Your task to perform on an android device: turn off translation in the chrome app Image 0: 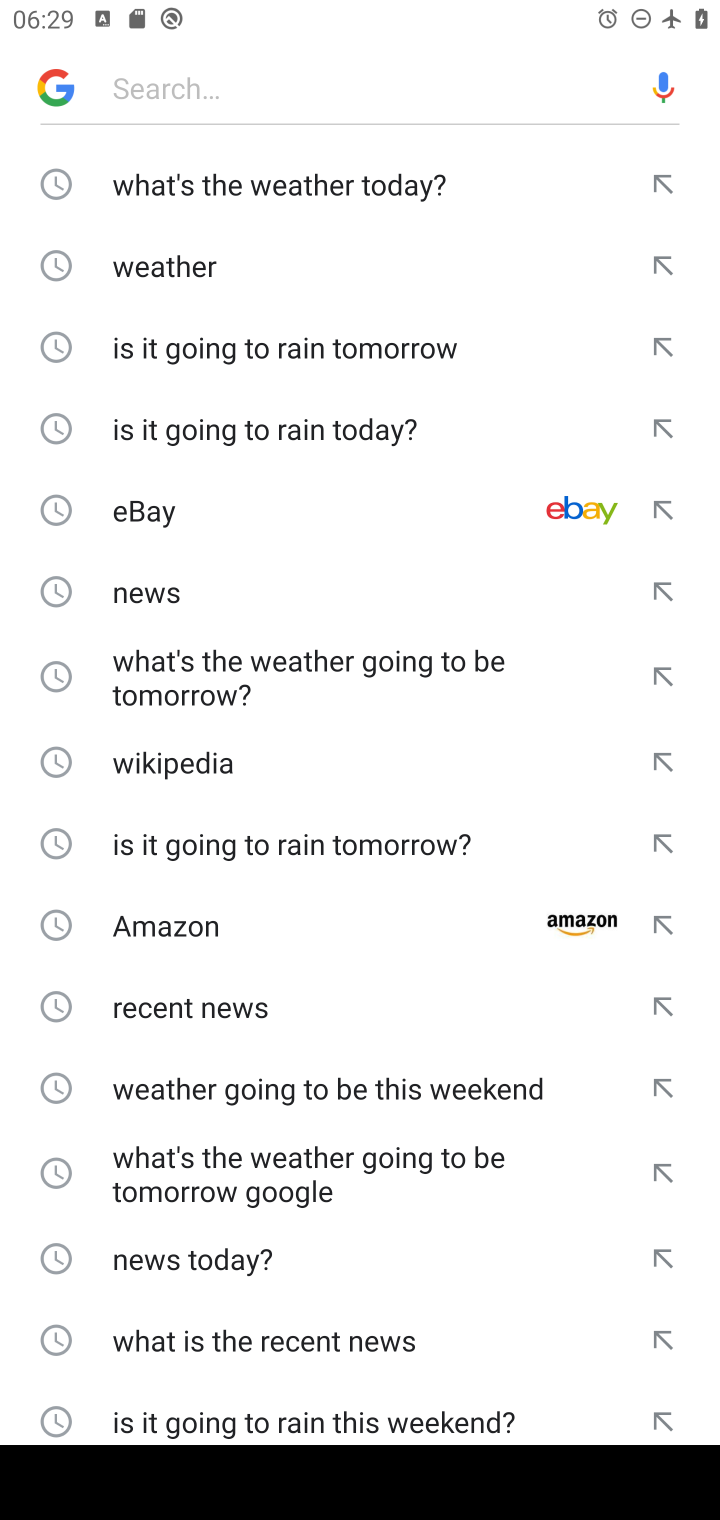
Step 0: press home button
Your task to perform on an android device: turn off translation in the chrome app Image 1: 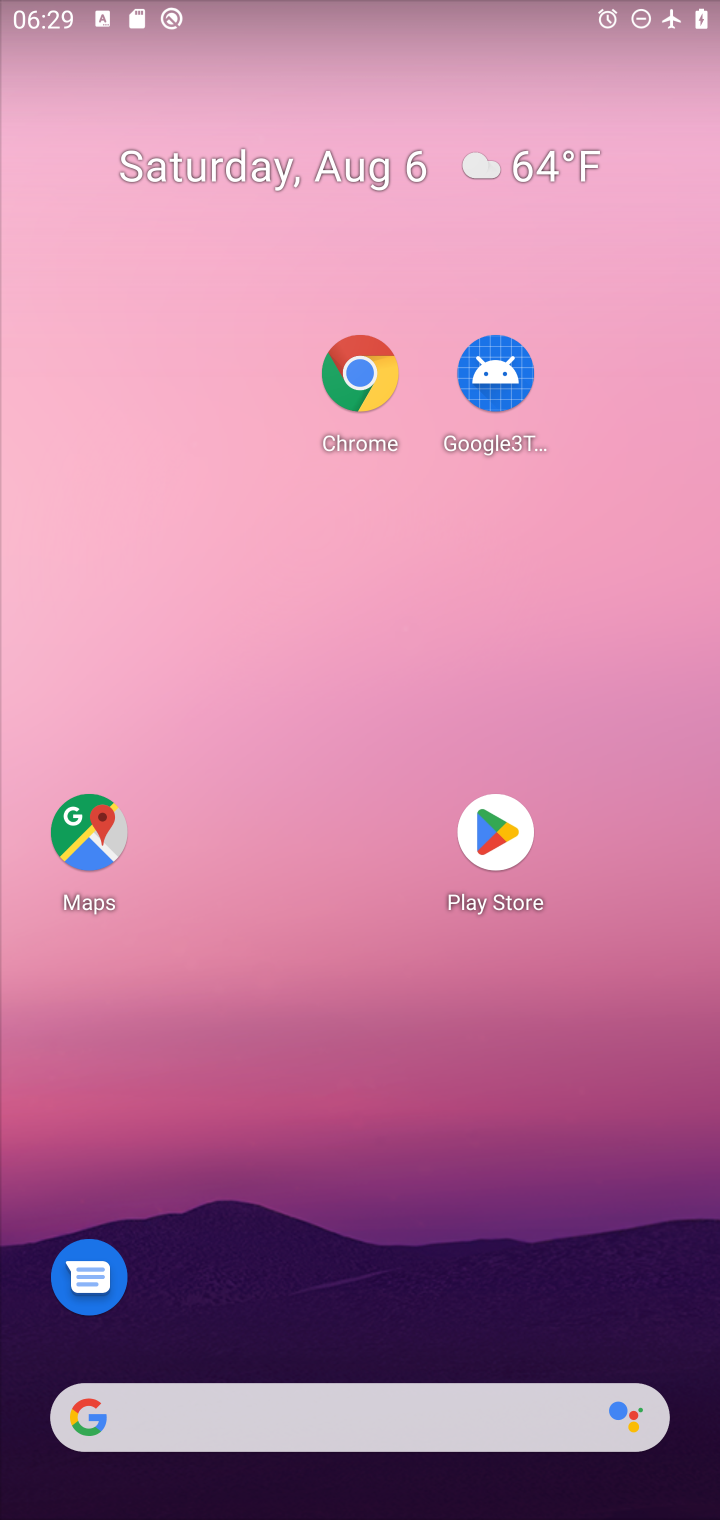
Step 1: drag from (405, 1423) to (260, 49)
Your task to perform on an android device: turn off translation in the chrome app Image 2: 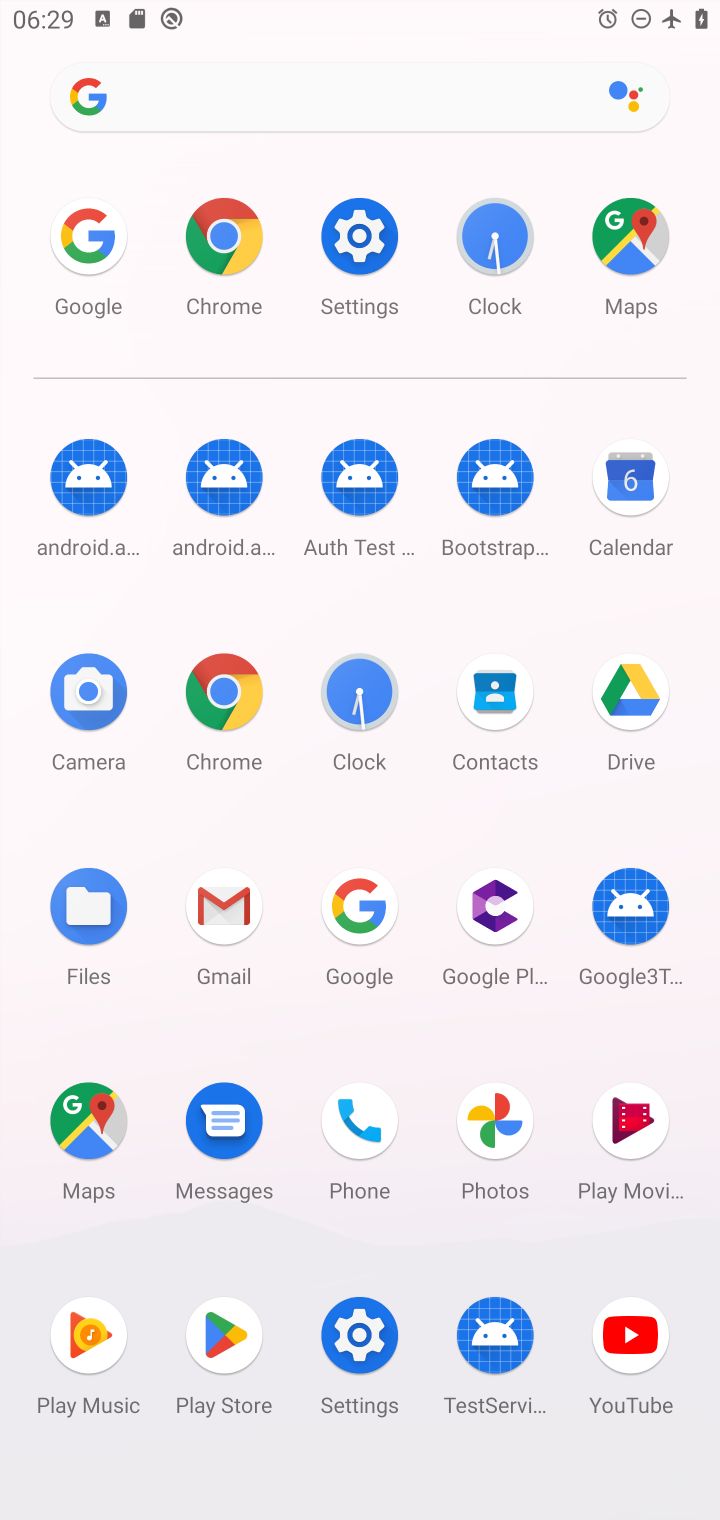
Step 2: click (232, 690)
Your task to perform on an android device: turn off translation in the chrome app Image 3: 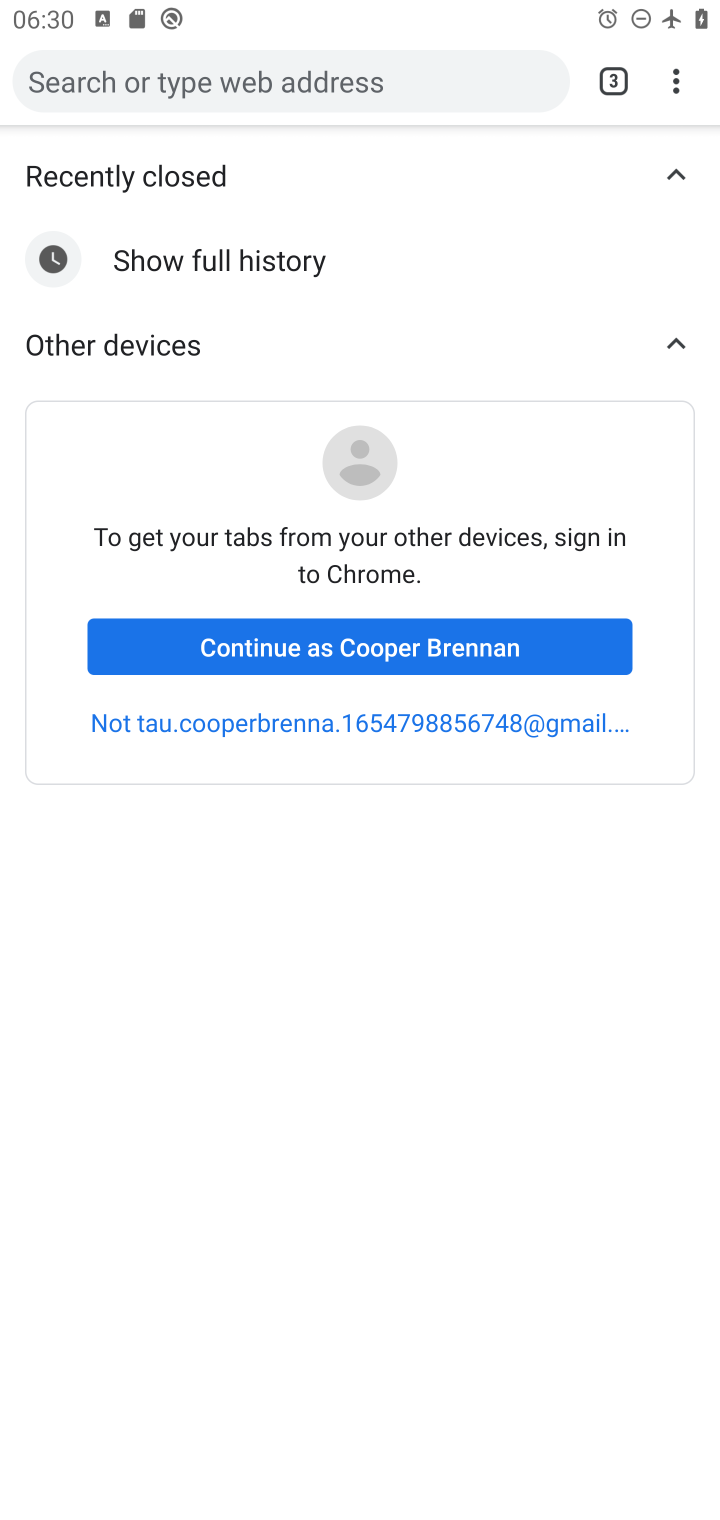
Step 3: click (683, 83)
Your task to perform on an android device: turn off translation in the chrome app Image 4: 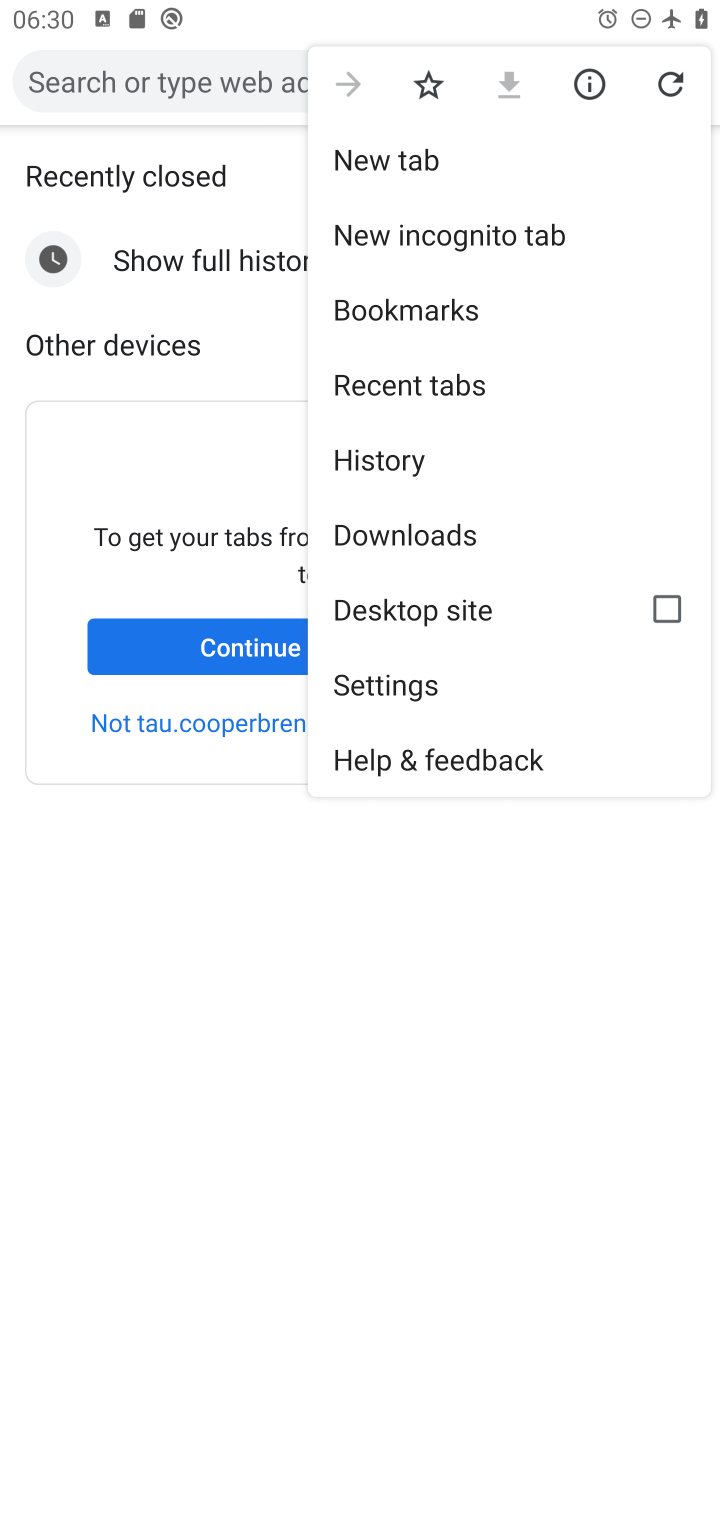
Step 4: click (498, 701)
Your task to perform on an android device: turn off translation in the chrome app Image 5: 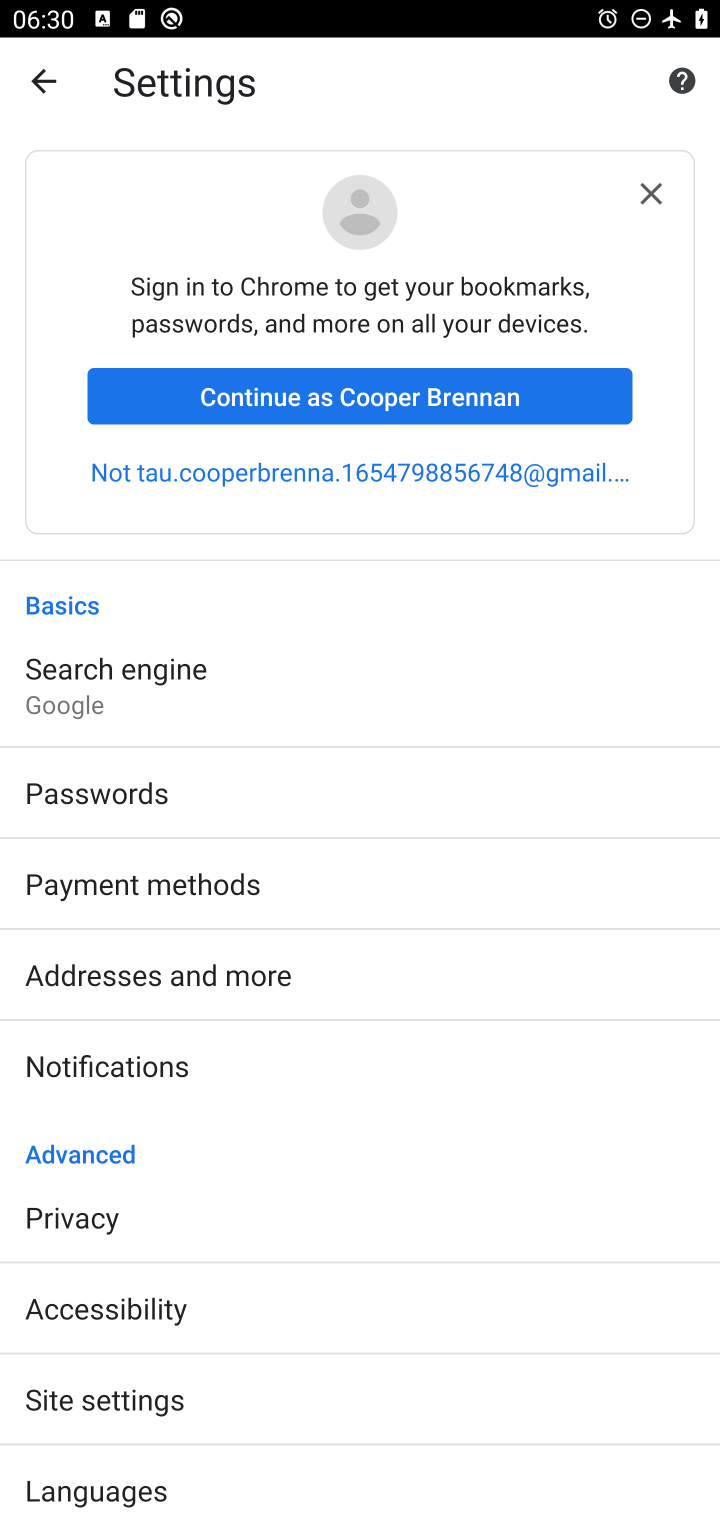
Step 5: click (112, 1480)
Your task to perform on an android device: turn off translation in the chrome app Image 6: 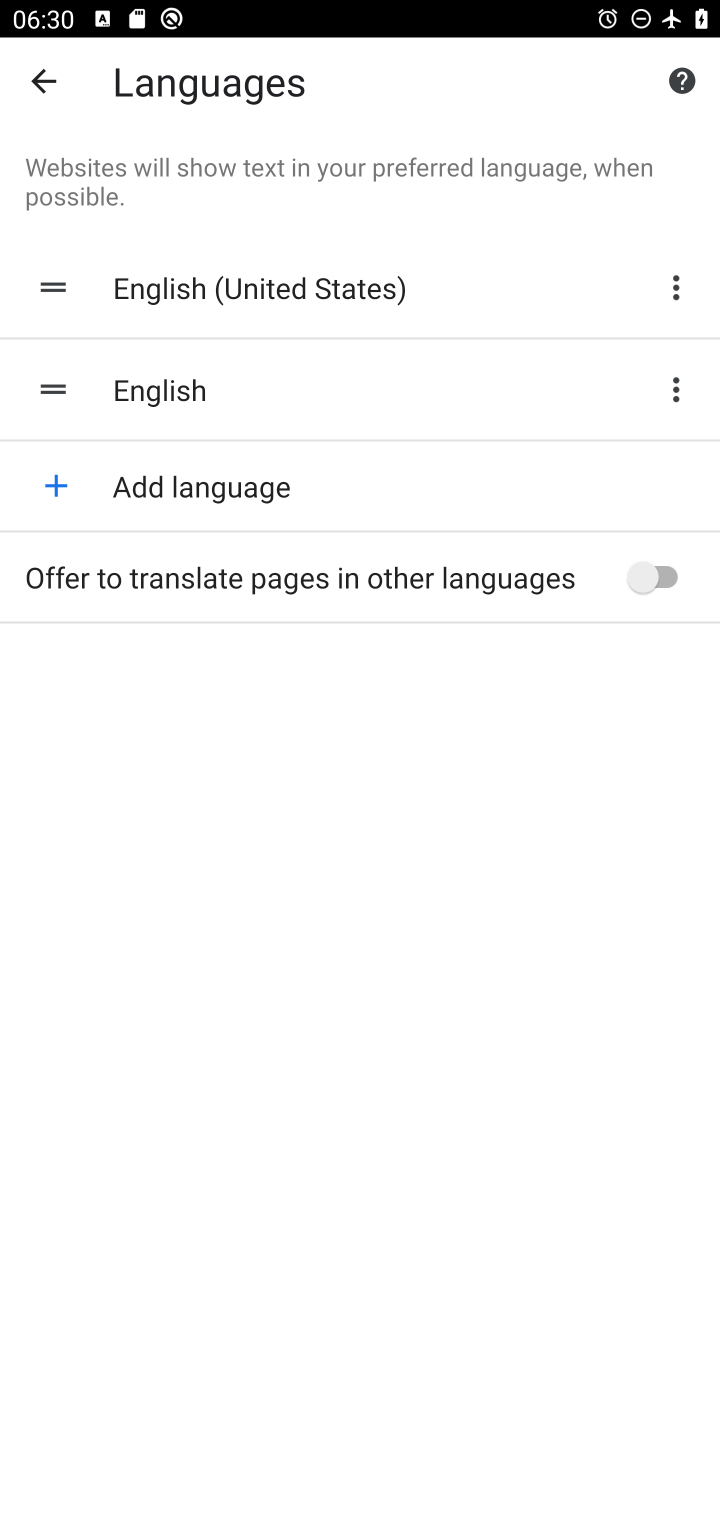
Step 6: task complete